Your task to perform on an android device: open chrome privacy settings Image 0: 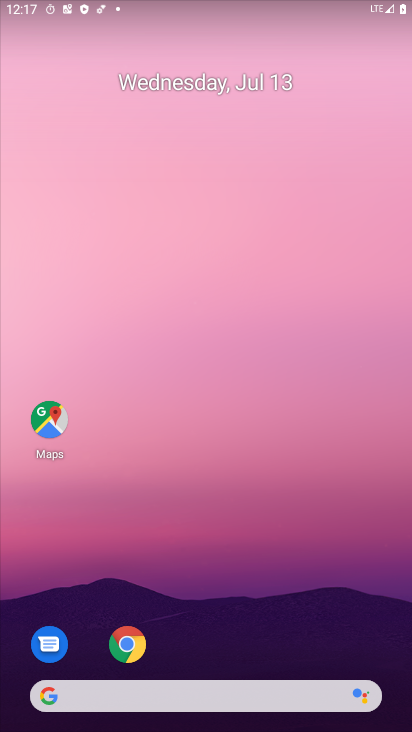
Step 0: click (130, 641)
Your task to perform on an android device: open chrome privacy settings Image 1: 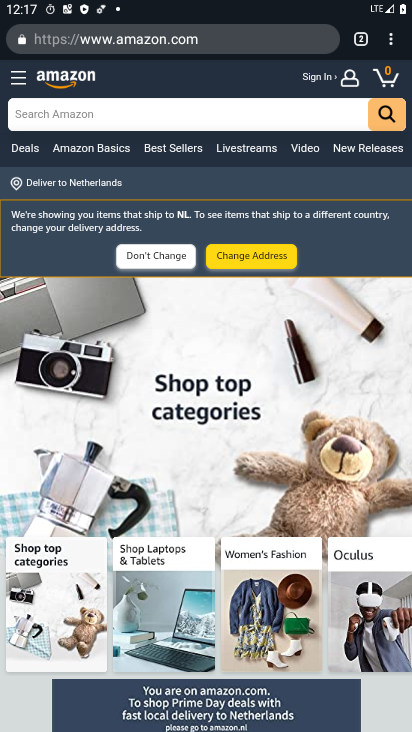
Step 1: click (383, 42)
Your task to perform on an android device: open chrome privacy settings Image 2: 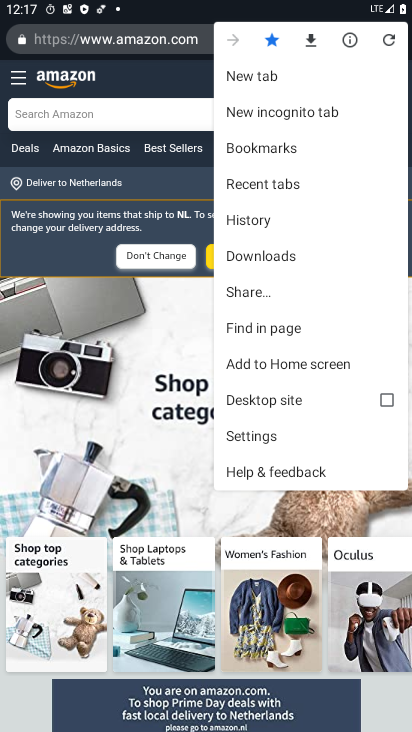
Step 2: click (241, 434)
Your task to perform on an android device: open chrome privacy settings Image 3: 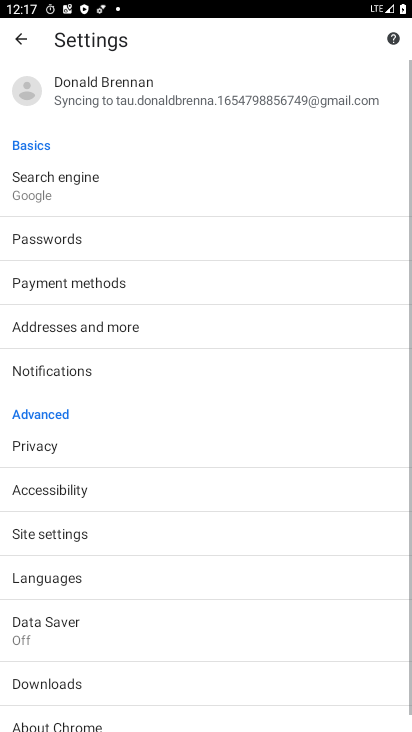
Step 3: click (62, 444)
Your task to perform on an android device: open chrome privacy settings Image 4: 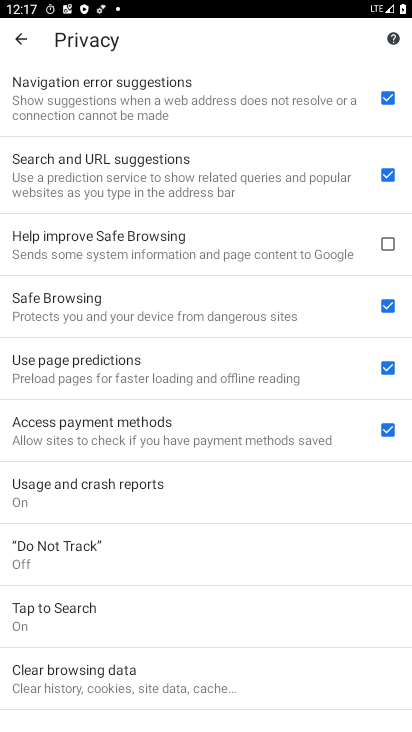
Step 4: task complete